Your task to perform on an android device: check the backup settings in the google photos Image 0: 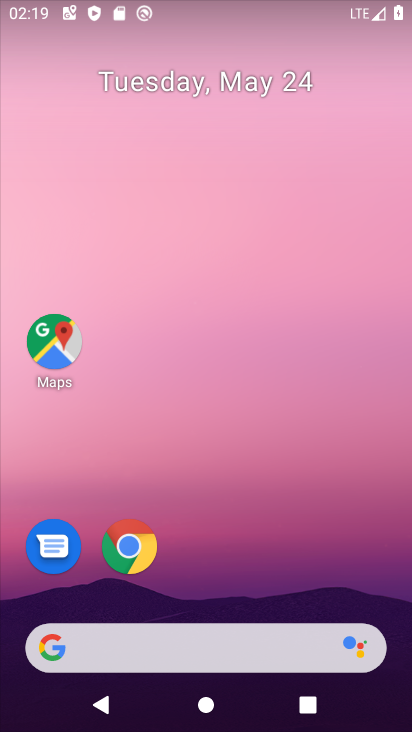
Step 0: drag from (199, 562) to (306, 162)
Your task to perform on an android device: check the backup settings in the google photos Image 1: 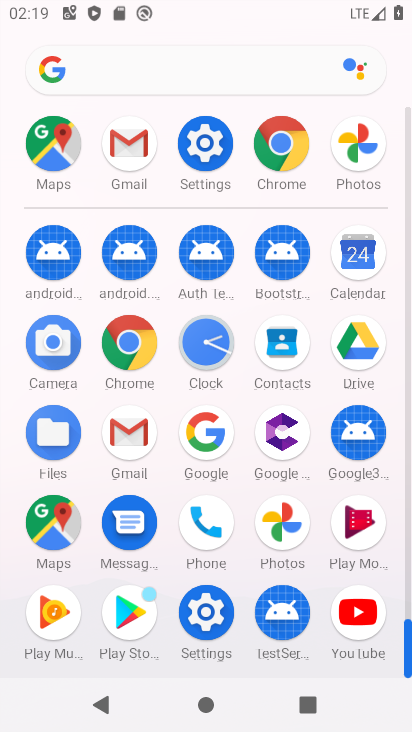
Step 1: click (281, 531)
Your task to perform on an android device: check the backup settings in the google photos Image 2: 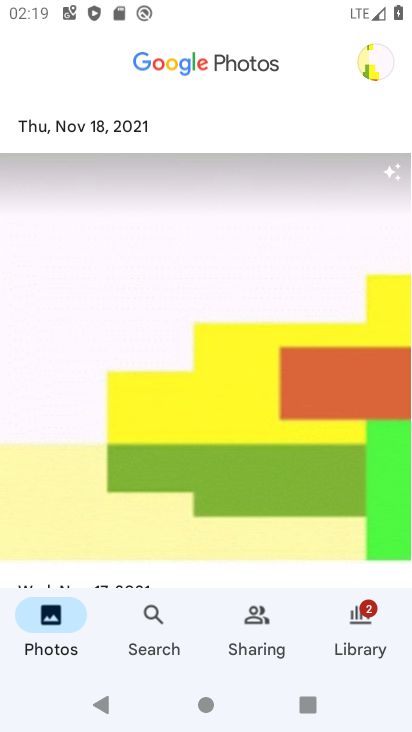
Step 2: click (377, 61)
Your task to perform on an android device: check the backup settings in the google photos Image 3: 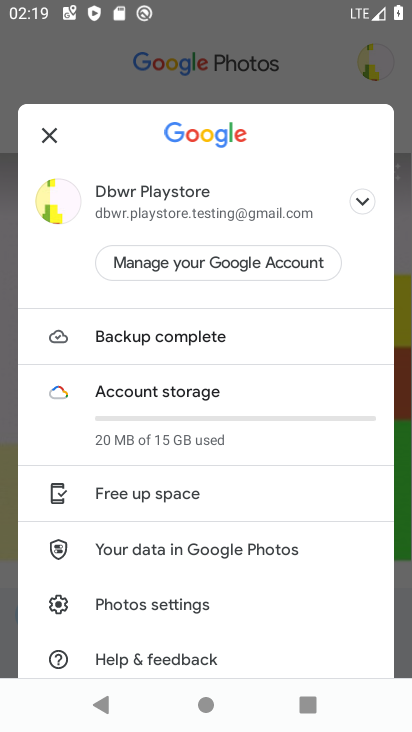
Step 3: click (169, 592)
Your task to perform on an android device: check the backup settings in the google photos Image 4: 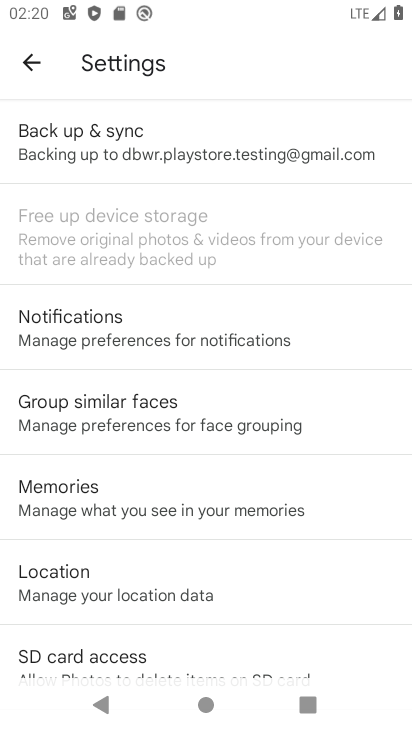
Step 4: drag from (198, 559) to (284, 170)
Your task to perform on an android device: check the backup settings in the google photos Image 5: 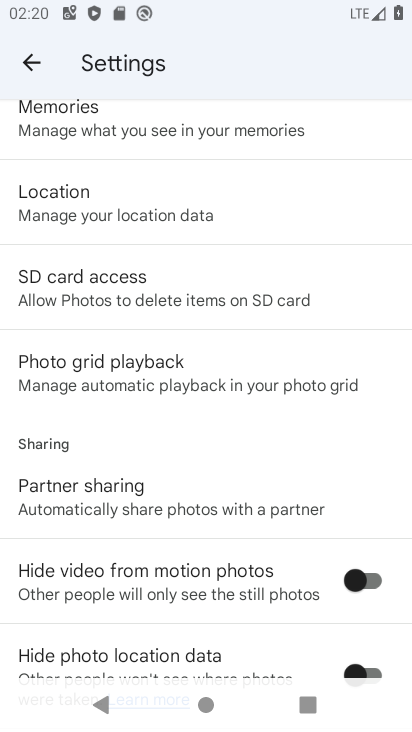
Step 5: drag from (194, 198) to (273, 728)
Your task to perform on an android device: check the backup settings in the google photos Image 6: 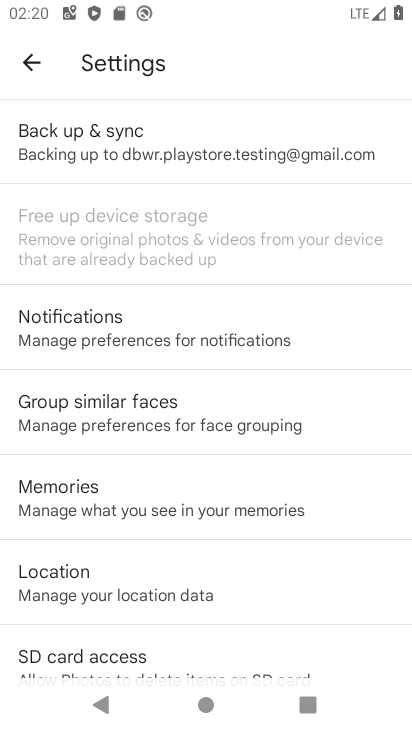
Step 6: click (164, 131)
Your task to perform on an android device: check the backup settings in the google photos Image 7: 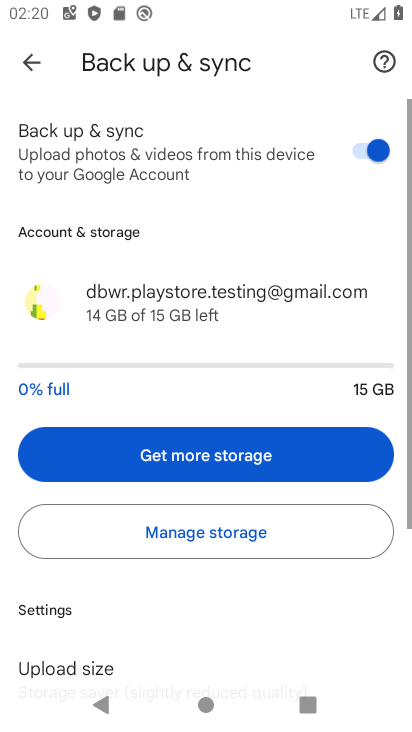
Step 7: task complete